Your task to perform on an android device: What's the weather? Image 0: 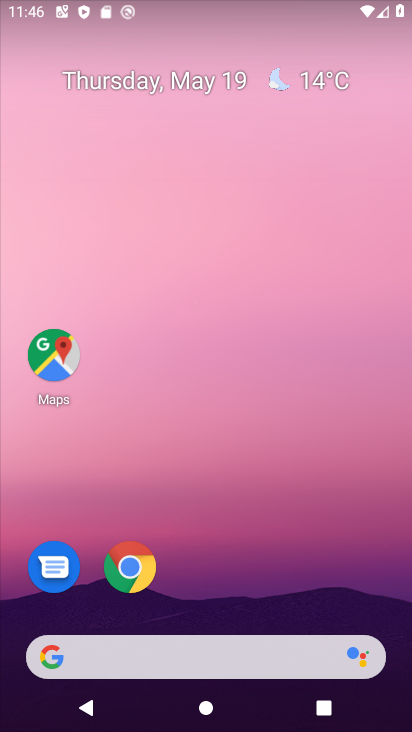
Step 0: drag from (314, 552) to (331, 15)
Your task to perform on an android device: What's the weather? Image 1: 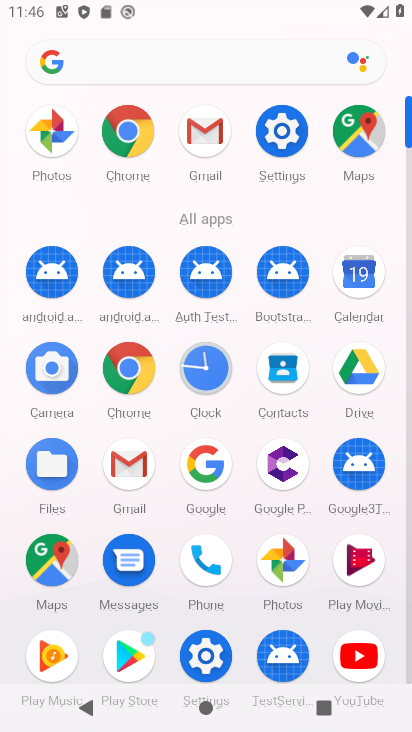
Step 1: click (46, 64)
Your task to perform on an android device: What's the weather? Image 2: 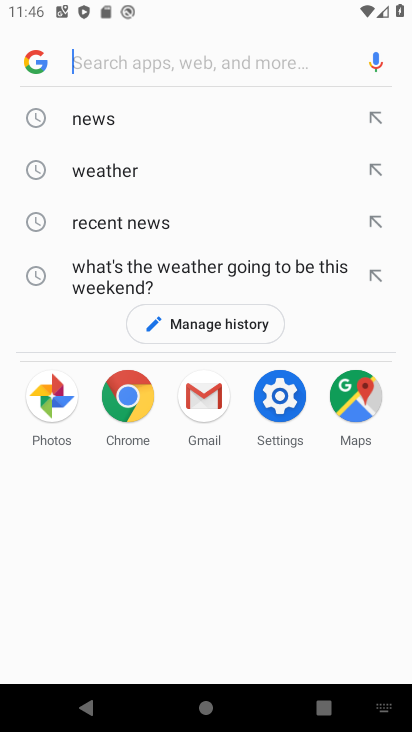
Step 2: click (46, 64)
Your task to perform on an android device: What's the weather? Image 3: 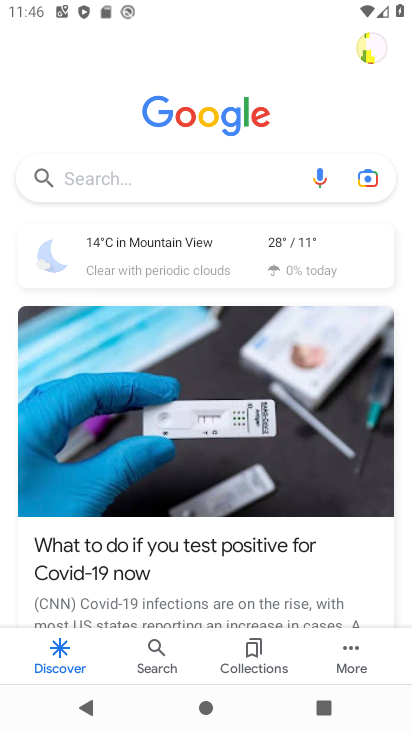
Step 3: click (214, 271)
Your task to perform on an android device: What's the weather? Image 4: 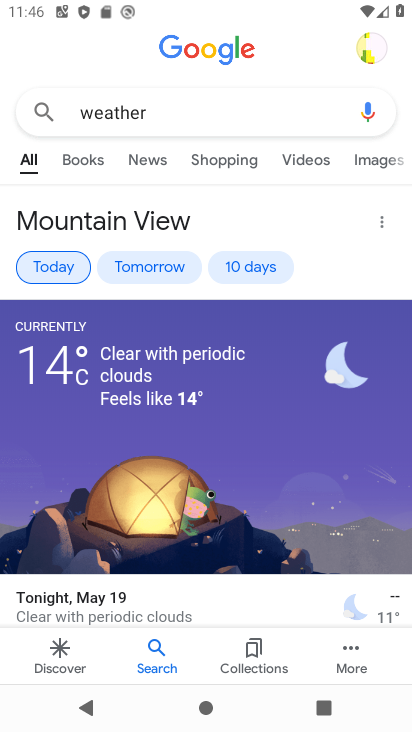
Step 4: task complete